Your task to perform on an android device: find which apps use the phone's location Image 0: 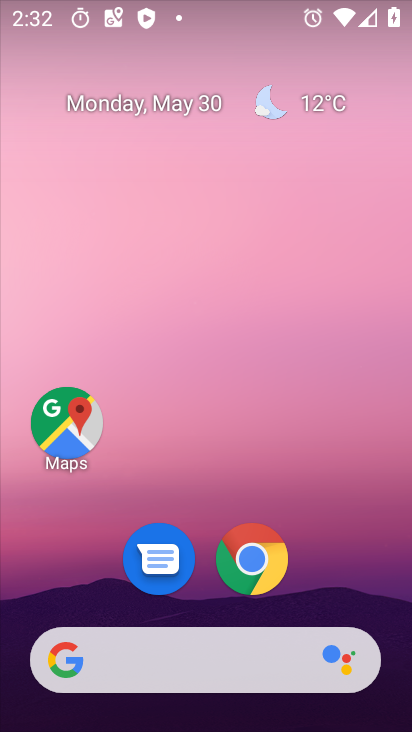
Step 0: drag from (195, 598) to (248, 26)
Your task to perform on an android device: find which apps use the phone's location Image 1: 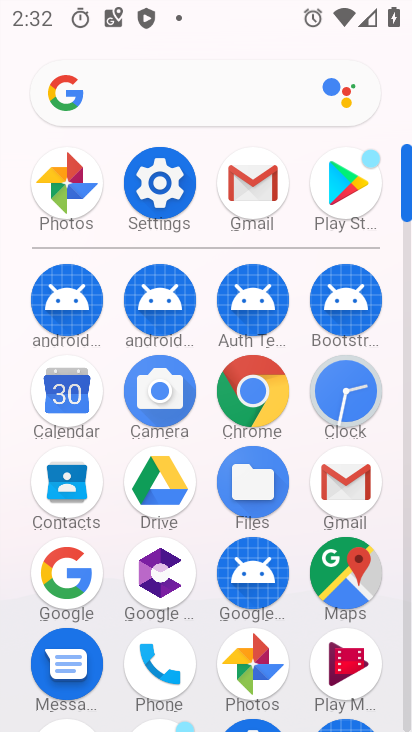
Step 1: click (160, 170)
Your task to perform on an android device: find which apps use the phone's location Image 2: 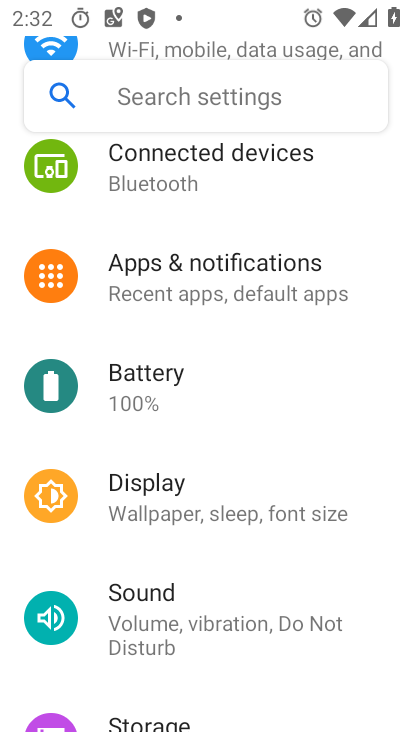
Step 2: drag from (251, 255) to (289, 133)
Your task to perform on an android device: find which apps use the phone's location Image 3: 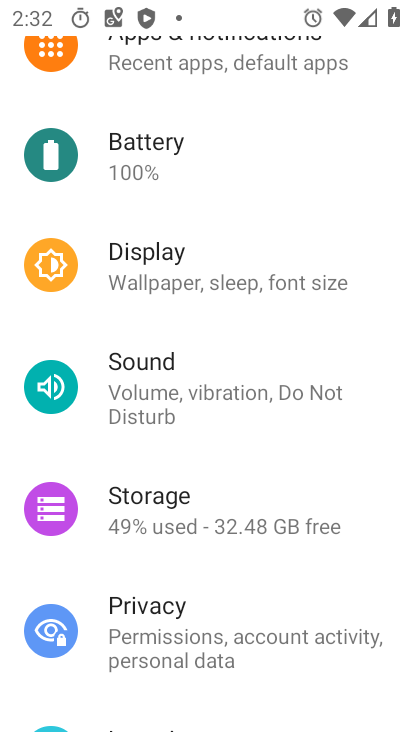
Step 3: drag from (201, 583) to (258, 257)
Your task to perform on an android device: find which apps use the phone's location Image 4: 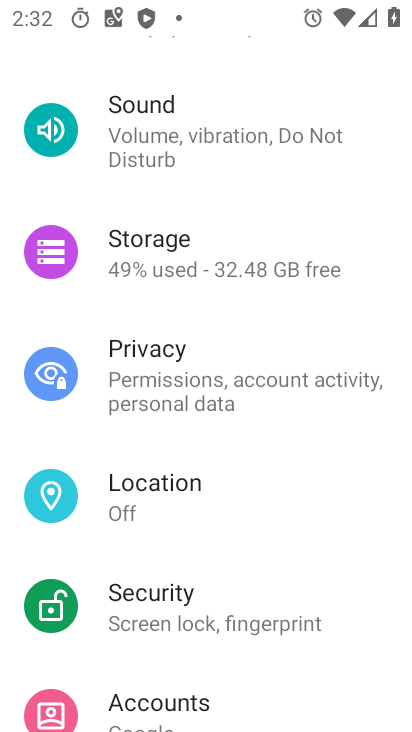
Step 4: click (163, 499)
Your task to perform on an android device: find which apps use the phone's location Image 5: 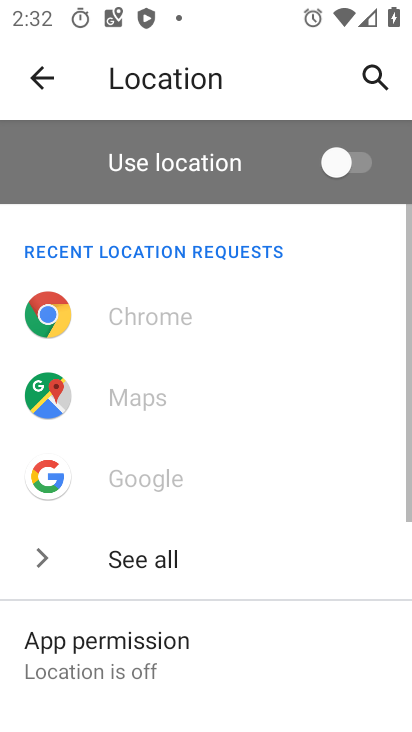
Step 5: click (91, 655)
Your task to perform on an android device: find which apps use the phone's location Image 6: 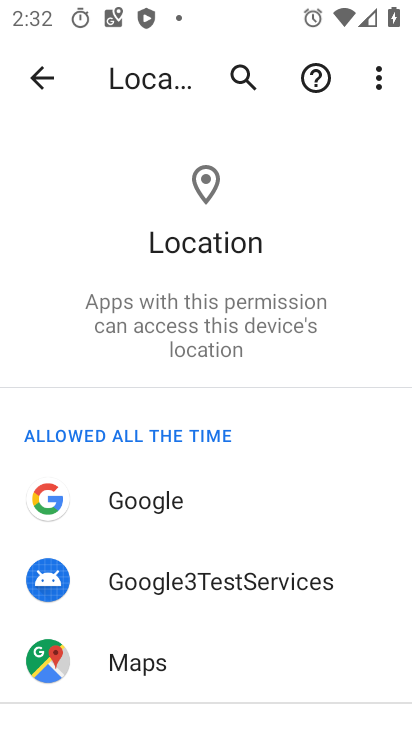
Step 6: task complete